Your task to perform on an android device: turn pop-ups on in chrome Image 0: 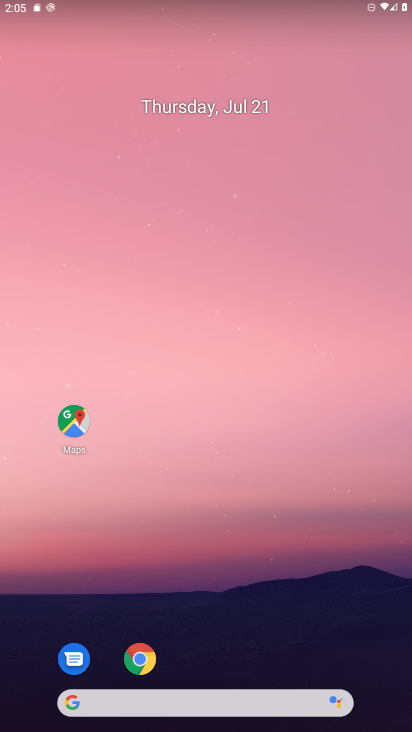
Step 0: click (146, 659)
Your task to perform on an android device: turn pop-ups on in chrome Image 1: 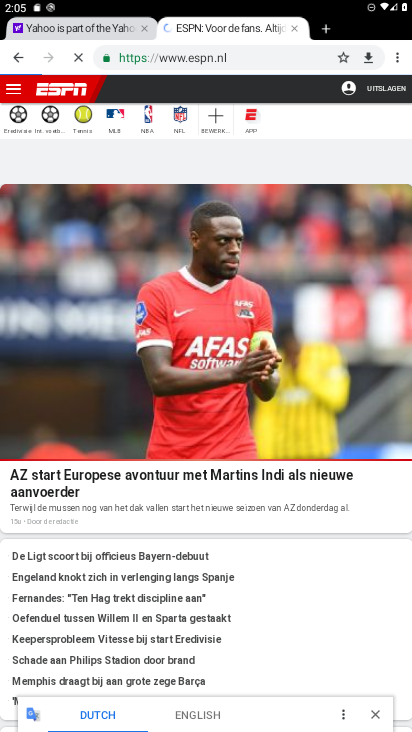
Step 1: click (397, 63)
Your task to perform on an android device: turn pop-ups on in chrome Image 2: 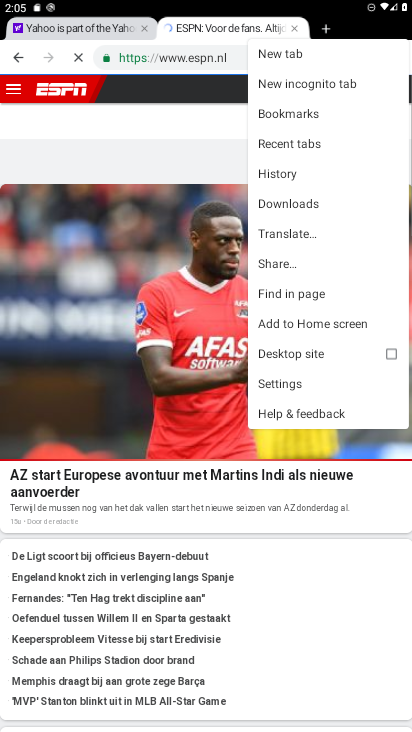
Step 2: click (277, 386)
Your task to perform on an android device: turn pop-ups on in chrome Image 3: 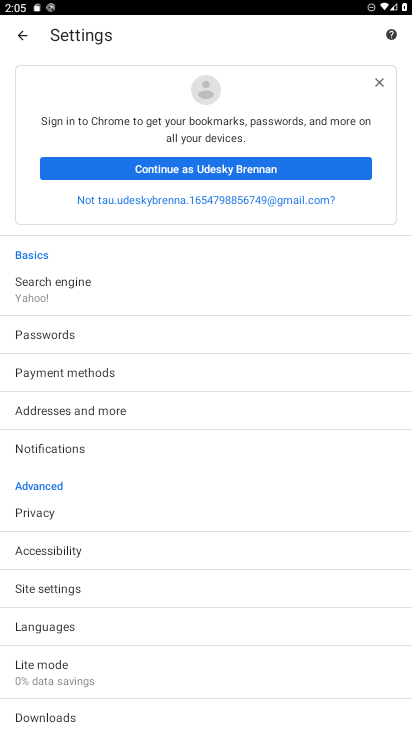
Step 3: click (20, 587)
Your task to perform on an android device: turn pop-ups on in chrome Image 4: 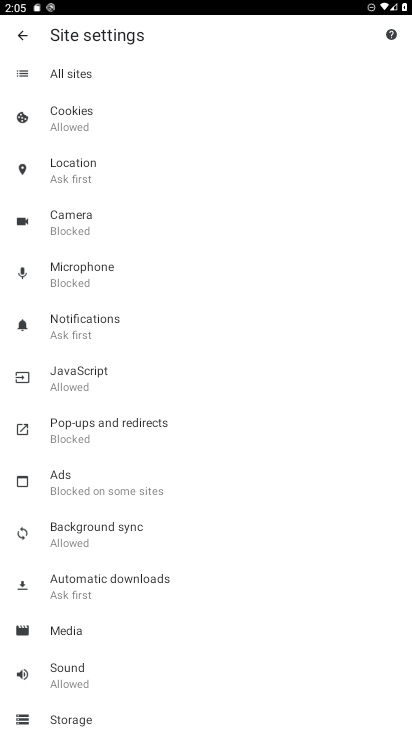
Step 4: click (130, 423)
Your task to perform on an android device: turn pop-ups on in chrome Image 5: 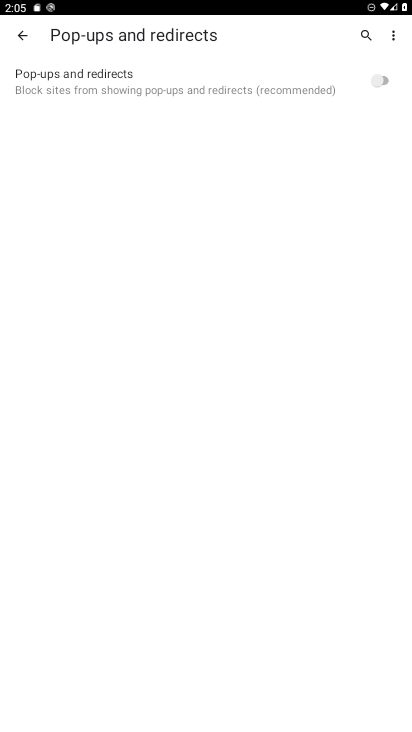
Step 5: click (375, 80)
Your task to perform on an android device: turn pop-ups on in chrome Image 6: 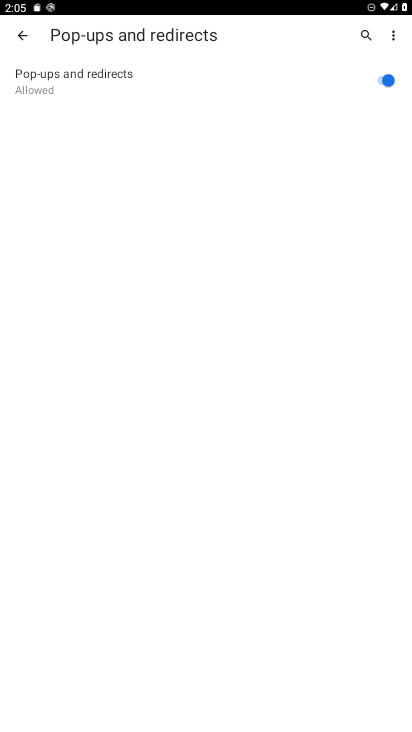
Step 6: task complete